Your task to perform on an android device: Set the phone to "Do not disturb". Image 0: 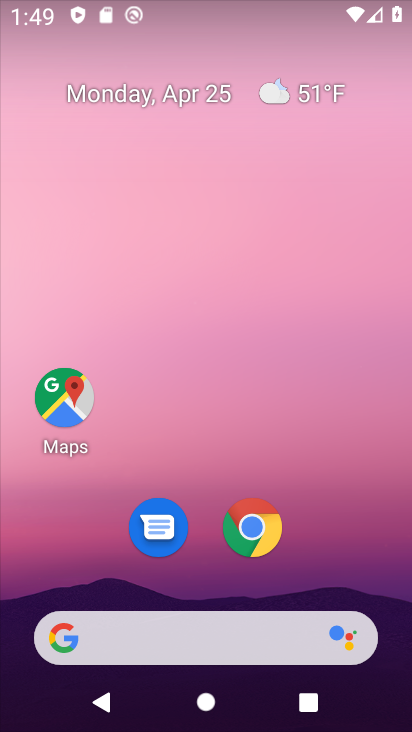
Step 0: drag from (357, 538) to (250, 29)
Your task to perform on an android device: Set the phone to "Do not disturb". Image 1: 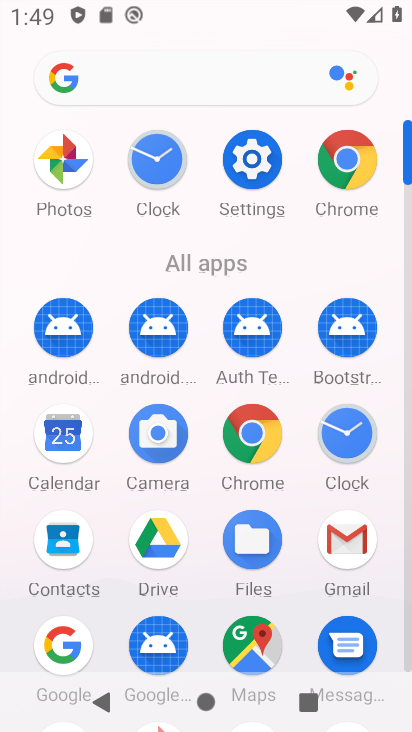
Step 1: click (256, 153)
Your task to perform on an android device: Set the phone to "Do not disturb". Image 2: 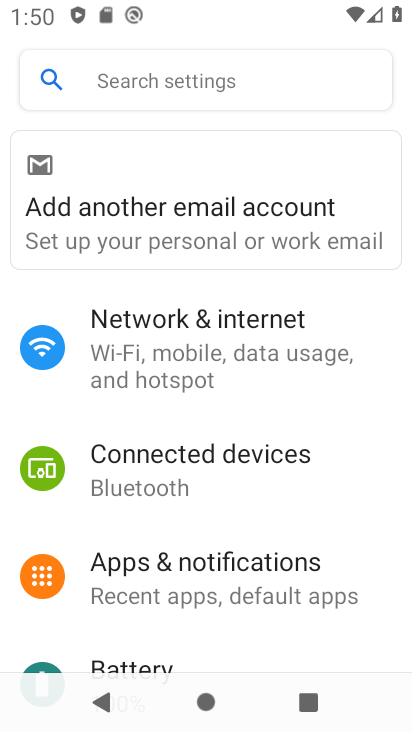
Step 2: drag from (292, 539) to (290, 203)
Your task to perform on an android device: Set the phone to "Do not disturb". Image 3: 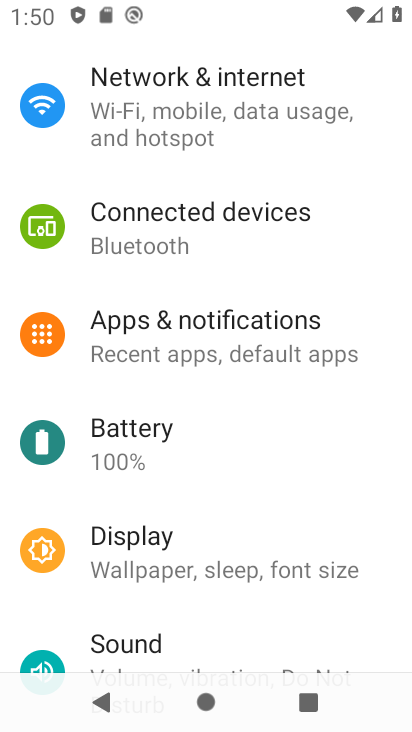
Step 3: drag from (255, 534) to (262, 256)
Your task to perform on an android device: Set the phone to "Do not disturb". Image 4: 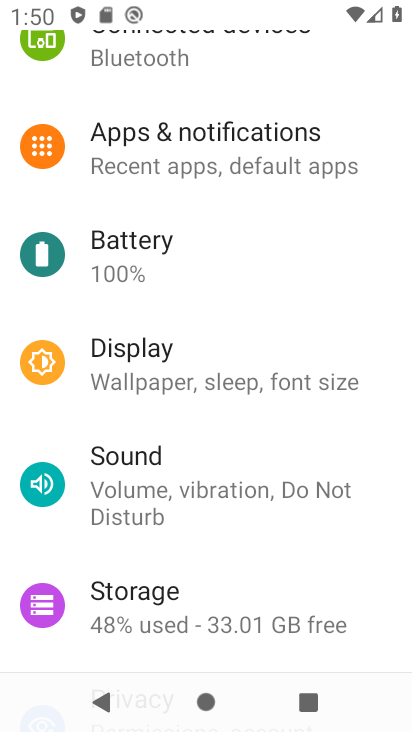
Step 4: click (193, 472)
Your task to perform on an android device: Set the phone to "Do not disturb". Image 5: 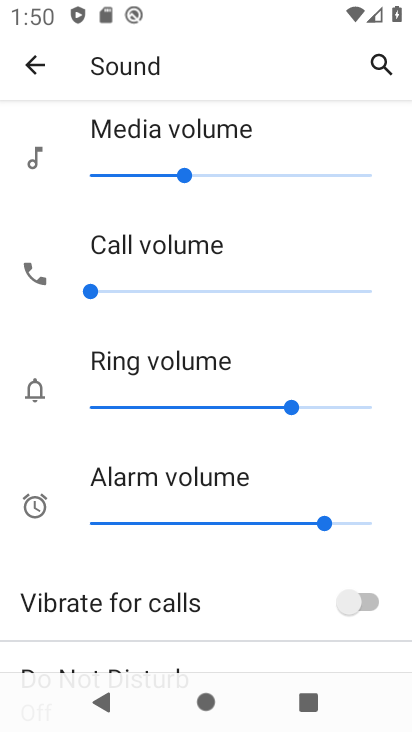
Step 5: drag from (129, 551) to (145, 136)
Your task to perform on an android device: Set the phone to "Do not disturb". Image 6: 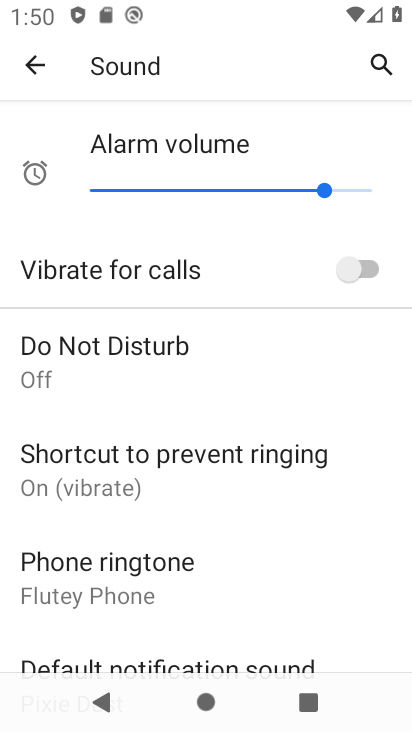
Step 6: drag from (170, 482) to (195, 180)
Your task to perform on an android device: Set the phone to "Do not disturb". Image 7: 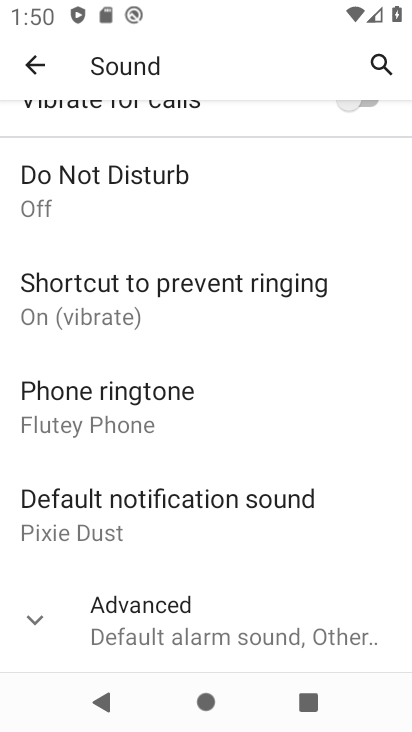
Step 7: click (135, 187)
Your task to perform on an android device: Set the phone to "Do not disturb". Image 8: 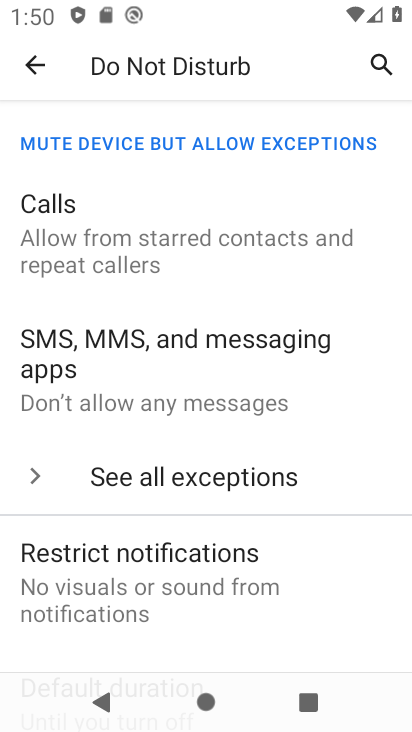
Step 8: drag from (253, 570) to (233, 94)
Your task to perform on an android device: Set the phone to "Do not disturb". Image 9: 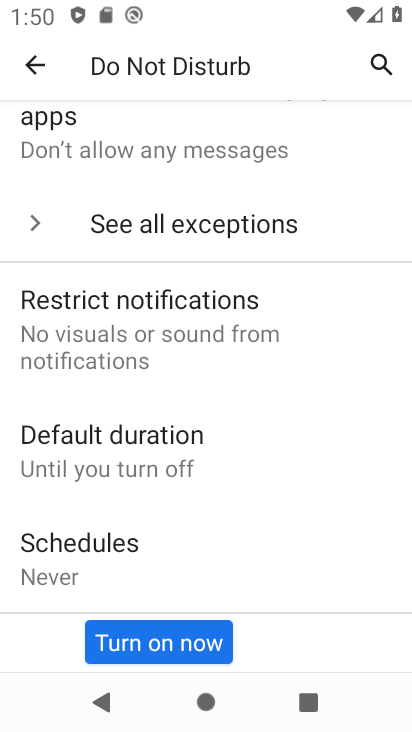
Step 9: click (183, 645)
Your task to perform on an android device: Set the phone to "Do not disturb". Image 10: 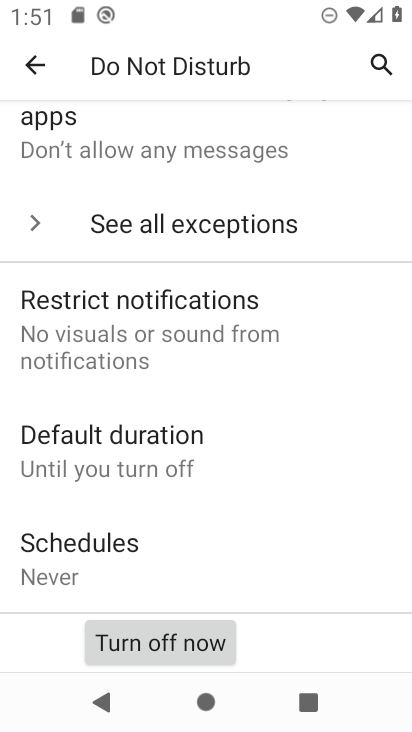
Step 10: task complete